Your task to perform on an android device: Show me recent news Image 0: 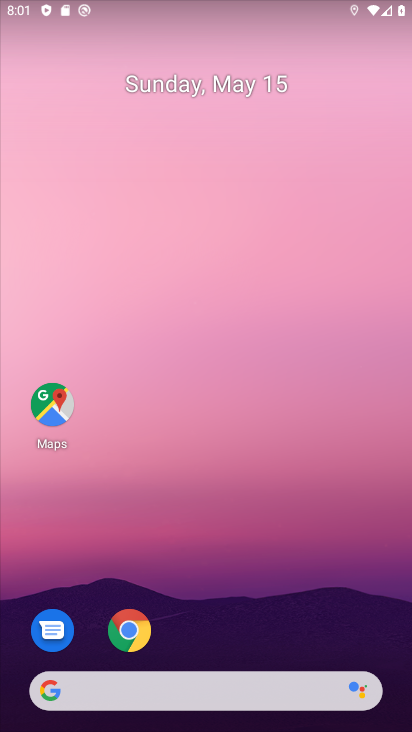
Step 0: drag from (227, 647) to (320, 108)
Your task to perform on an android device: Show me recent news Image 1: 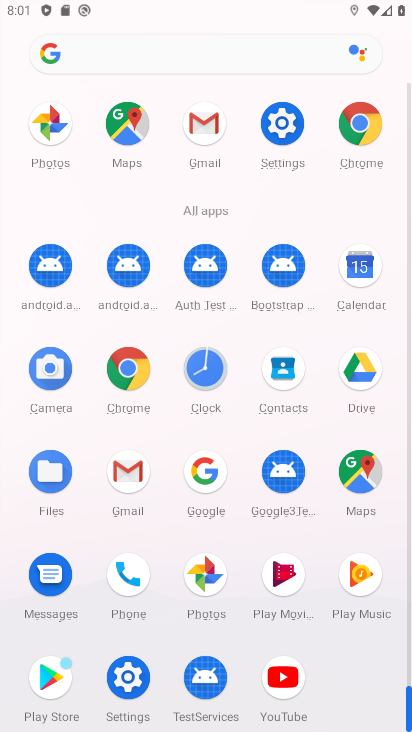
Step 1: click (206, 52)
Your task to perform on an android device: Show me recent news Image 2: 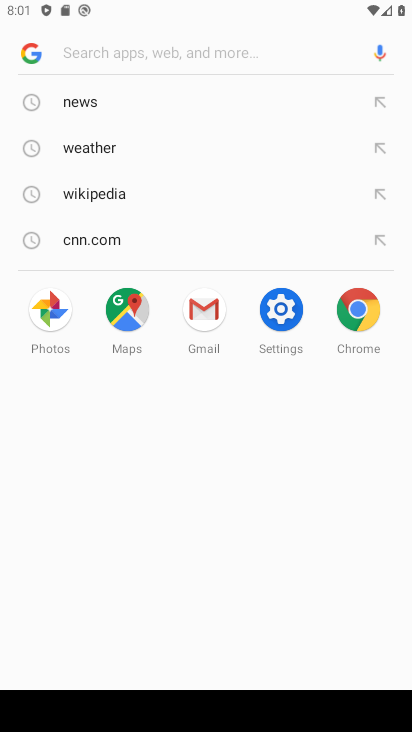
Step 2: type "recent news"
Your task to perform on an android device: Show me recent news Image 3: 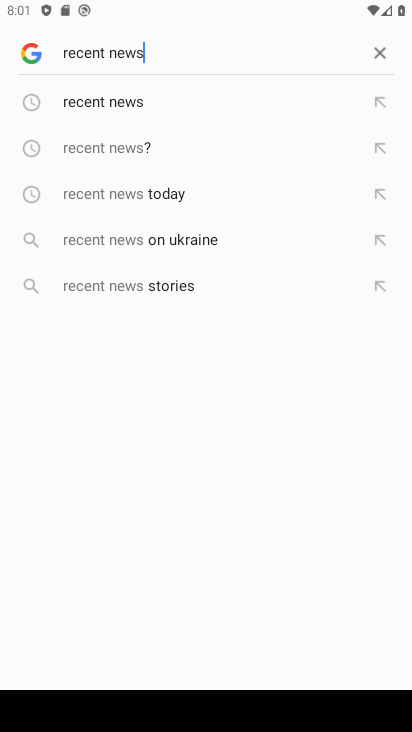
Step 3: click (130, 99)
Your task to perform on an android device: Show me recent news Image 4: 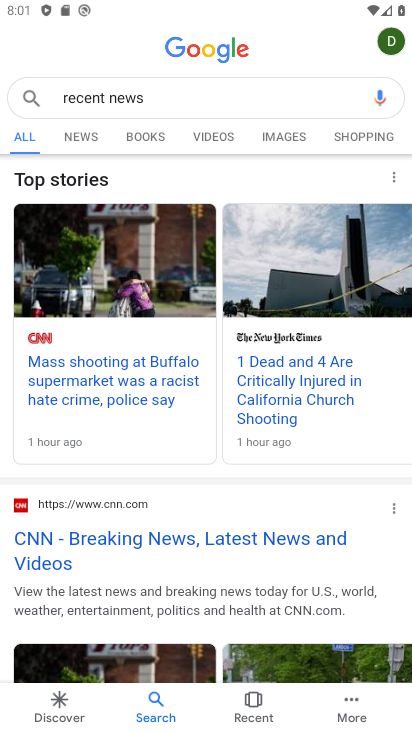
Step 4: task complete